Your task to perform on an android device: Open settings Image 0: 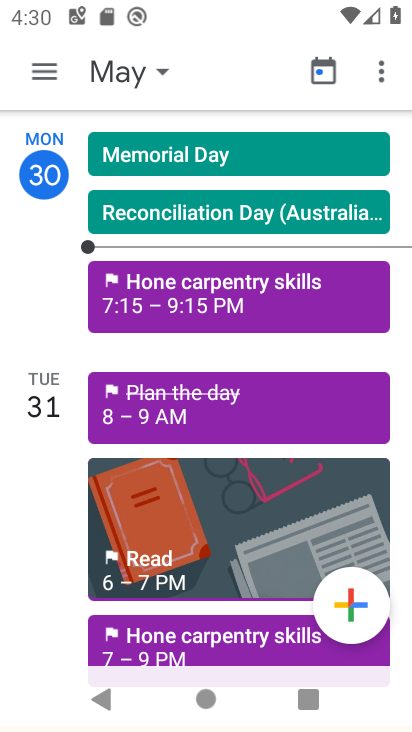
Step 0: press home button
Your task to perform on an android device: Open settings Image 1: 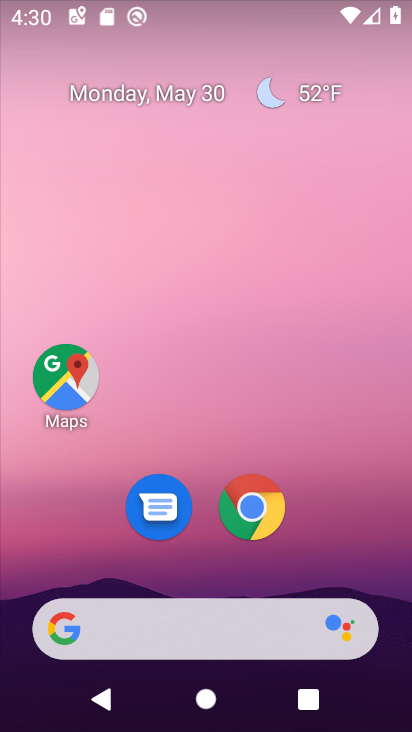
Step 1: drag from (316, 523) to (327, 98)
Your task to perform on an android device: Open settings Image 2: 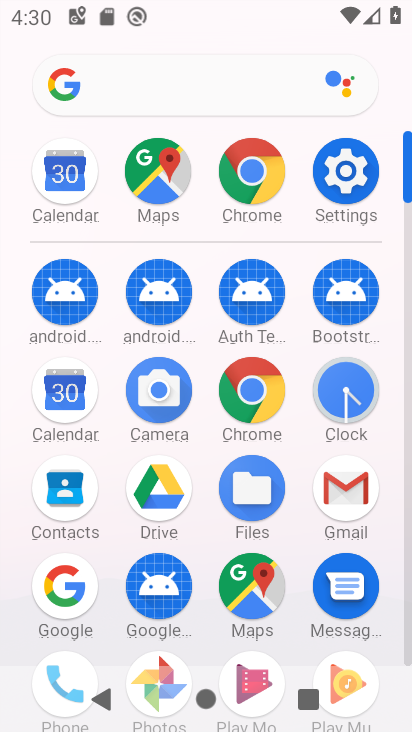
Step 2: click (351, 165)
Your task to perform on an android device: Open settings Image 3: 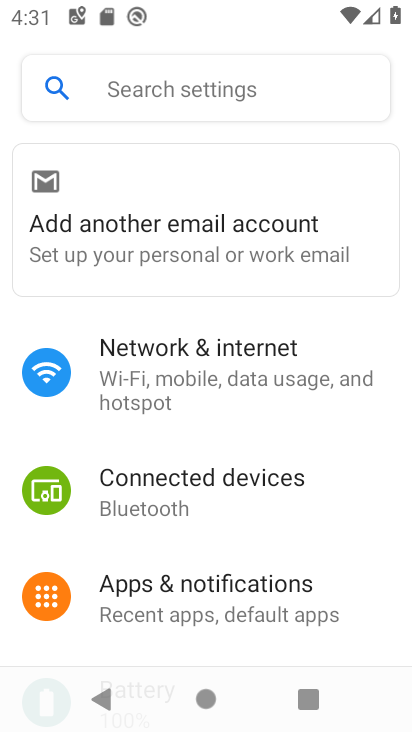
Step 3: task complete